Your task to perform on an android device: open app "Speedtest by Ookla" (install if not already installed) and enter user name: "hyena@outlook.com" and password: "terminators" Image 0: 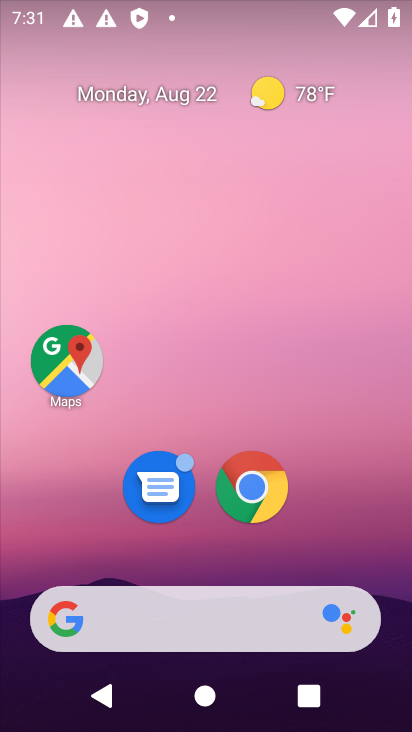
Step 0: drag from (228, 611) to (301, 51)
Your task to perform on an android device: open app "Speedtest by Ookla" (install if not already installed) and enter user name: "hyena@outlook.com" and password: "terminators" Image 1: 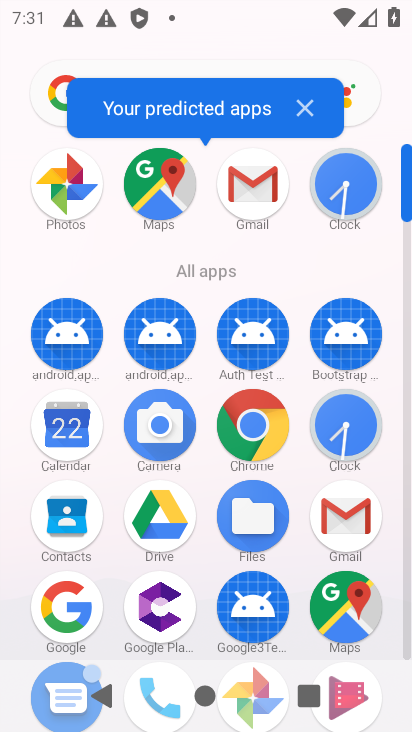
Step 1: drag from (251, 385) to (276, 86)
Your task to perform on an android device: open app "Speedtest by Ookla" (install if not already installed) and enter user name: "hyena@outlook.com" and password: "terminators" Image 2: 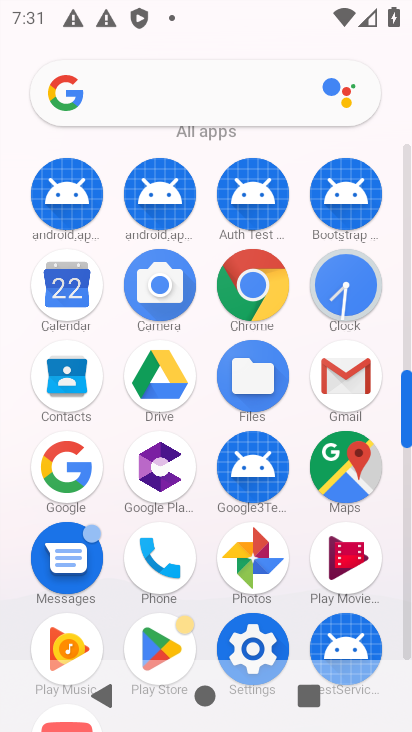
Step 2: click (155, 651)
Your task to perform on an android device: open app "Speedtest by Ookla" (install if not already installed) and enter user name: "hyena@outlook.com" and password: "terminators" Image 3: 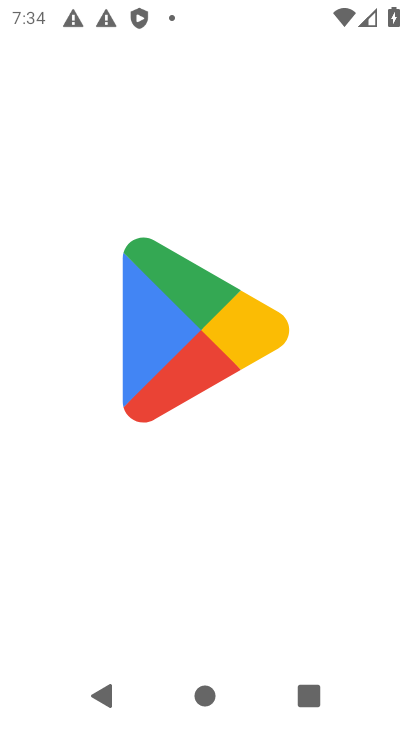
Step 3: task complete